Your task to perform on an android device: Go to Yahoo.com Image 0: 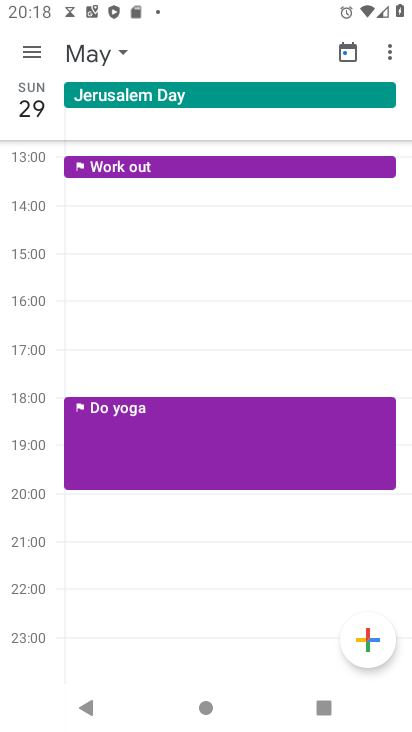
Step 0: press home button
Your task to perform on an android device: Go to Yahoo.com Image 1: 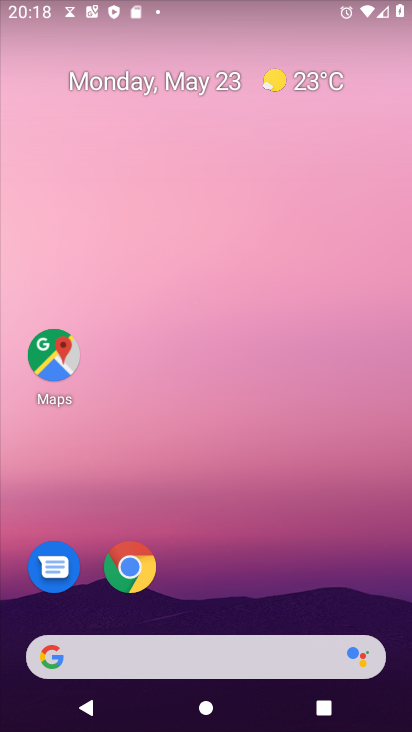
Step 1: drag from (265, 636) to (266, 207)
Your task to perform on an android device: Go to Yahoo.com Image 2: 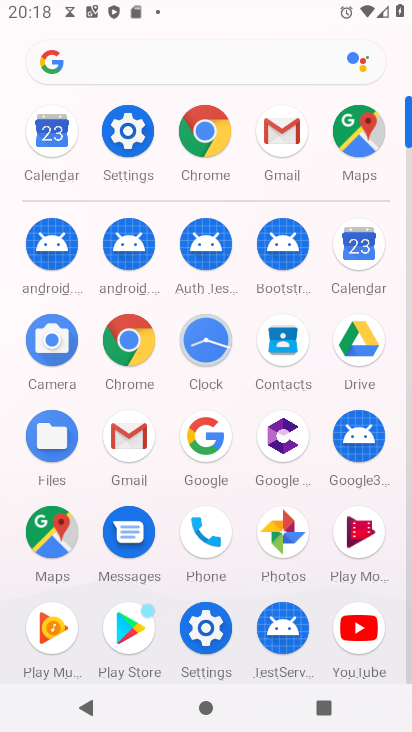
Step 2: click (200, 119)
Your task to perform on an android device: Go to Yahoo.com Image 3: 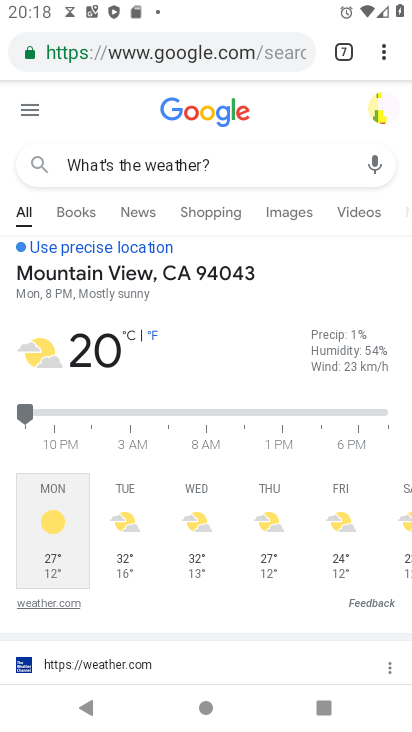
Step 3: click (386, 54)
Your task to perform on an android device: Go to Yahoo.com Image 4: 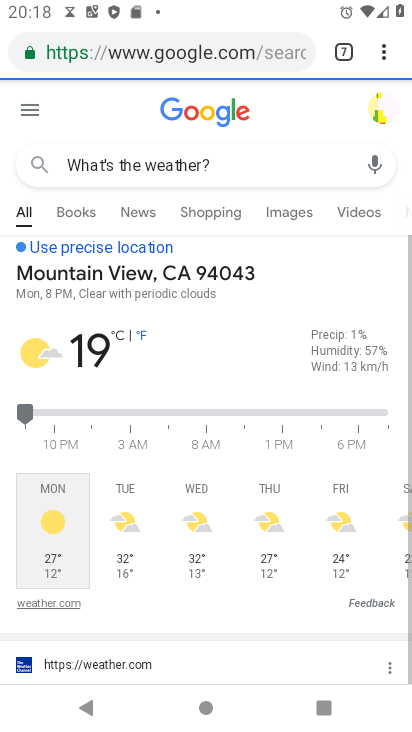
Step 4: click (381, 38)
Your task to perform on an android device: Go to Yahoo.com Image 5: 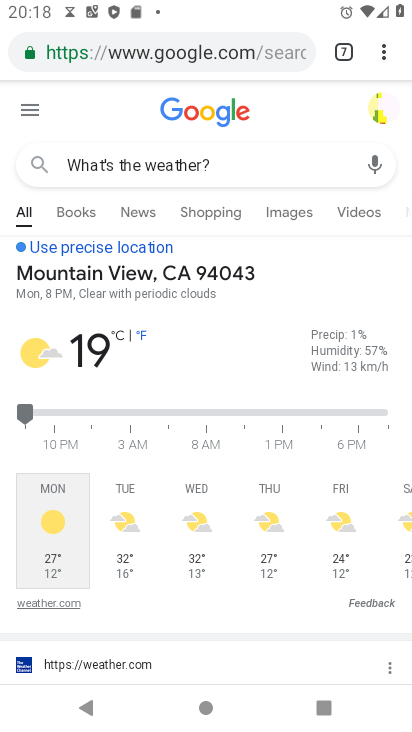
Step 5: click (374, 51)
Your task to perform on an android device: Go to Yahoo.com Image 6: 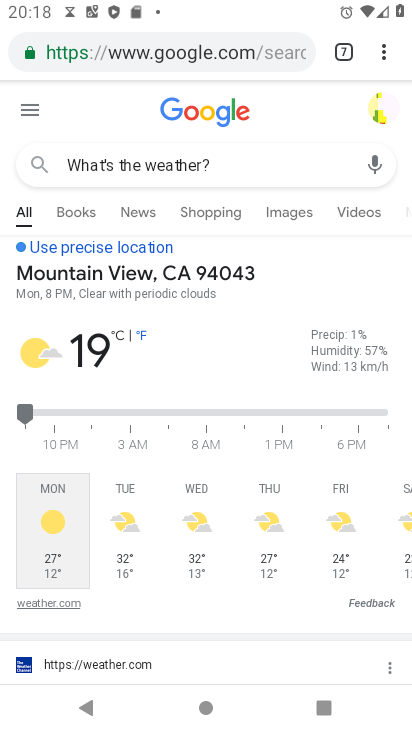
Step 6: click (380, 41)
Your task to perform on an android device: Go to Yahoo.com Image 7: 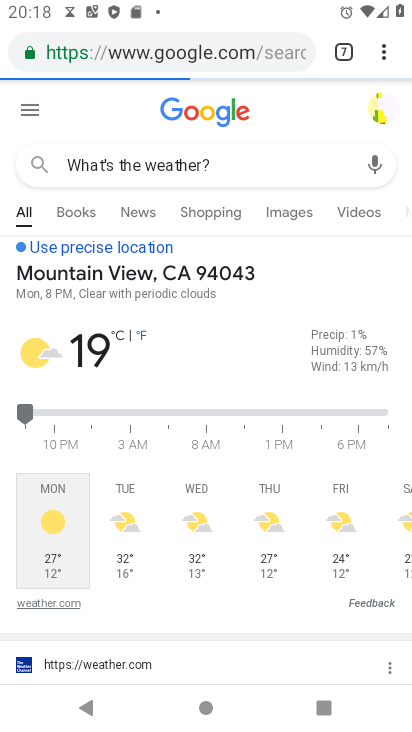
Step 7: click (370, 53)
Your task to perform on an android device: Go to Yahoo.com Image 8: 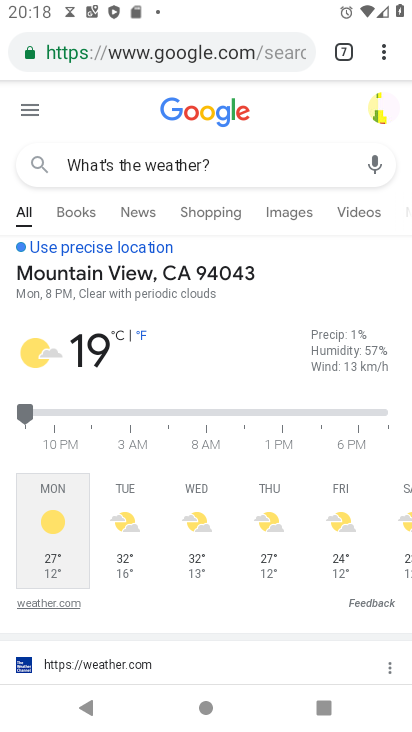
Step 8: click (360, 62)
Your task to perform on an android device: Go to Yahoo.com Image 9: 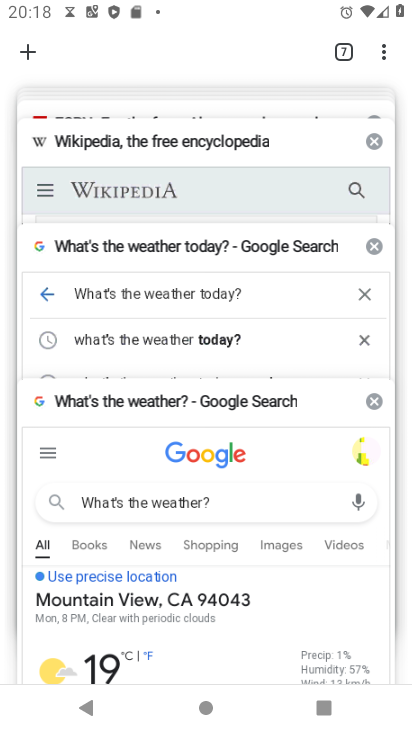
Step 9: click (19, 49)
Your task to perform on an android device: Go to Yahoo.com Image 10: 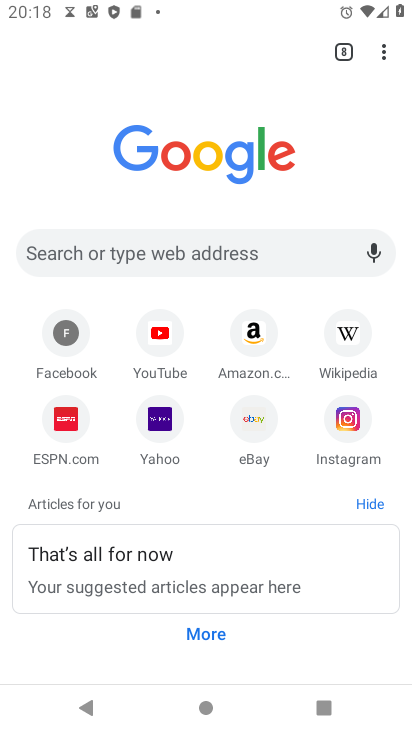
Step 10: click (172, 421)
Your task to perform on an android device: Go to Yahoo.com Image 11: 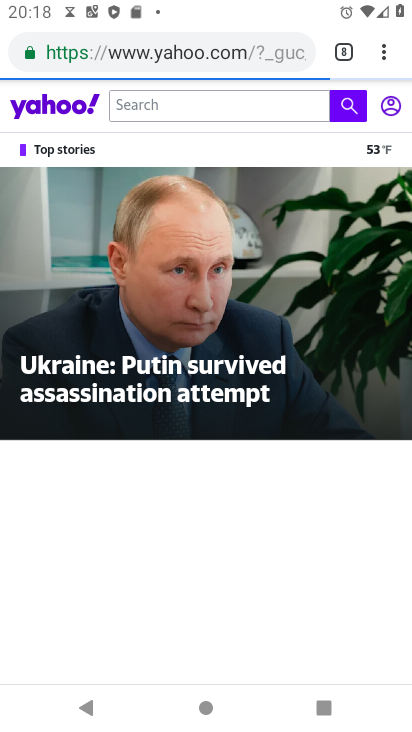
Step 11: task complete